Your task to perform on an android device: turn off translation in the chrome app Image 0: 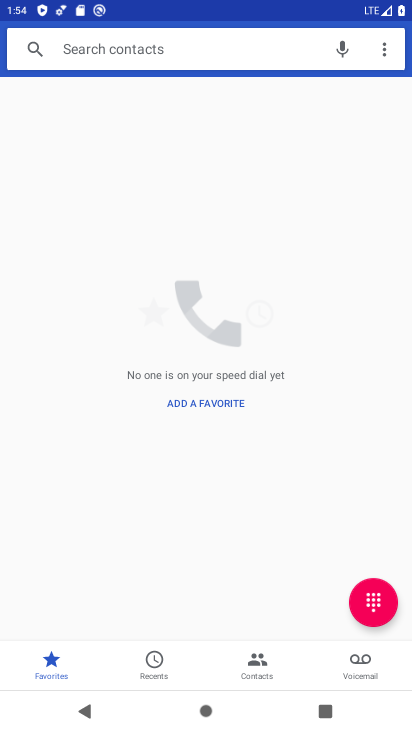
Step 0: press home button
Your task to perform on an android device: turn off translation in the chrome app Image 1: 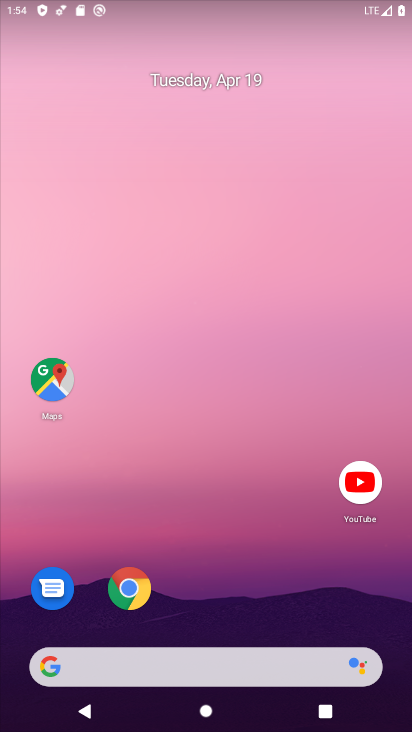
Step 1: click (139, 602)
Your task to perform on an android device: turn off translation in the chrome app Image 2: 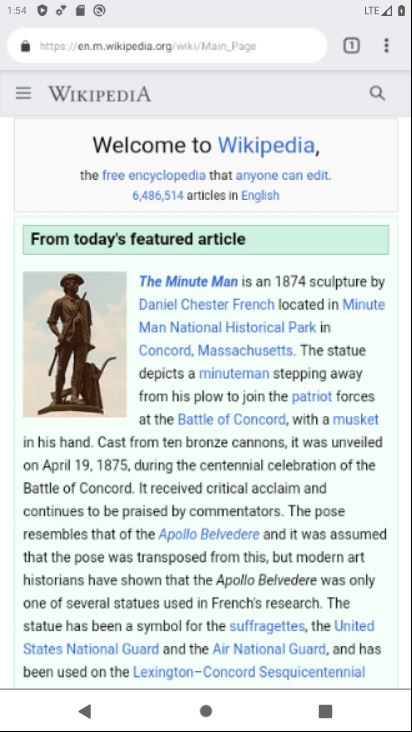
Step 2: click (151, 602)
Your task to perform on an android device: turn off translation in the chrome app Image 3: 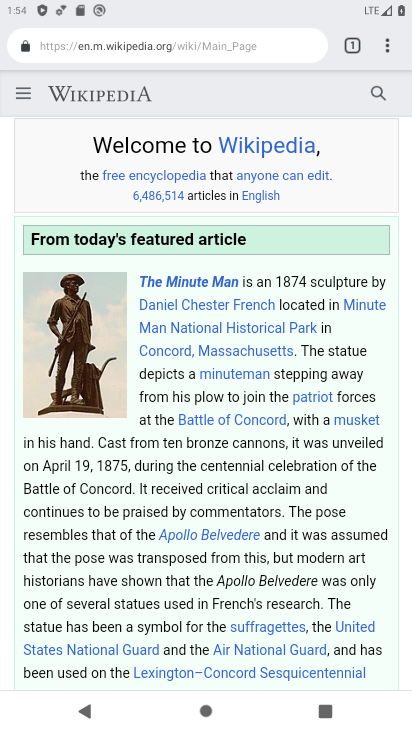
Step 3: drag from (385, 44) to (256, 549)
Your task to perform on an android device: turn off translation in the chrome app Image 4: 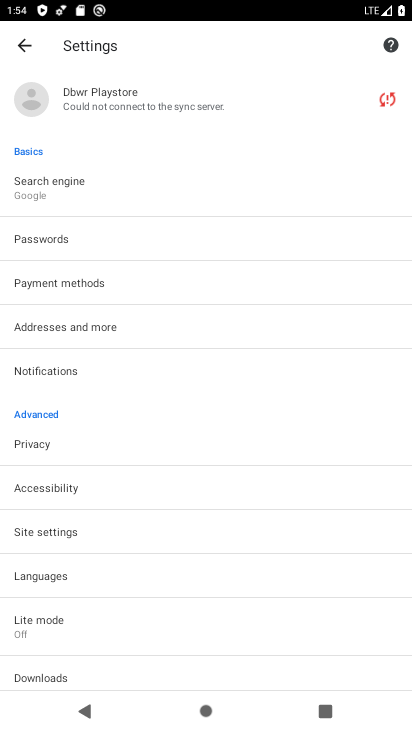
Step 4: click (57, 574)
Your task to perform on an android device: turn off translation in the chrome app Image 5: 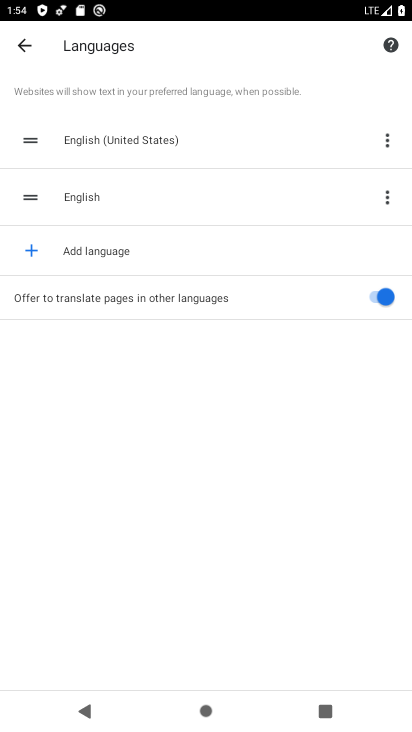
Step 5: click (381, 291)
Your task to perform on an android device: turn off translation in the chrome app Image 6: 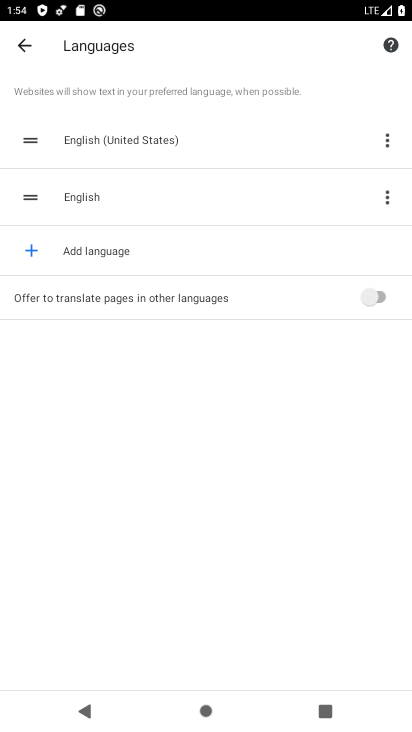
Step 6: task complete